Your task to perform on an android device: turn off airplane mode Image 0: 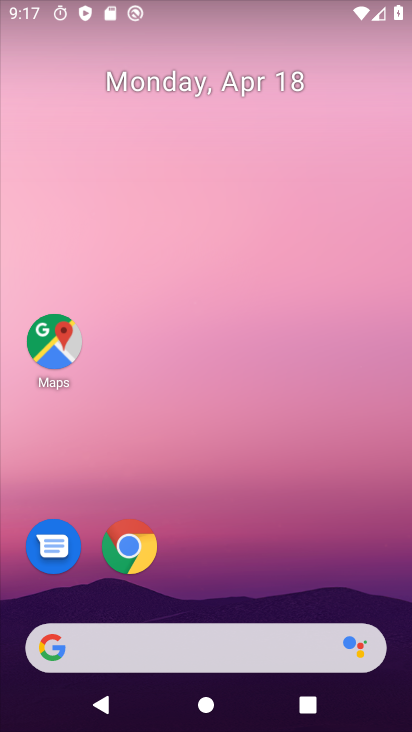
Step 0: drag from (223, 497) to (22, 11)
Your task to perform on an android device: turn off airplane mode Image 1: 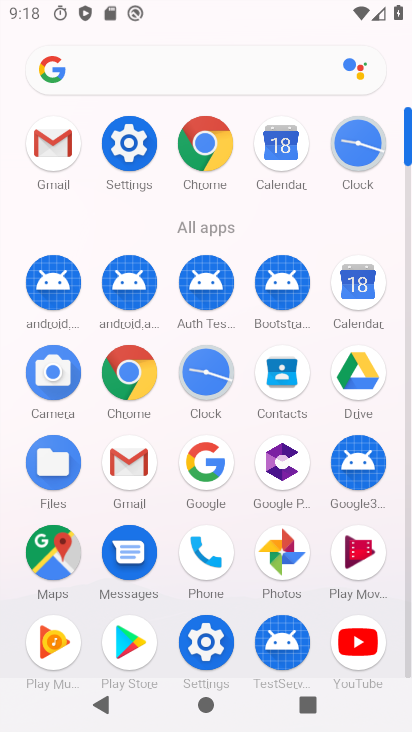
Step 1: click (121, 136)
Your task to perform on an android device: turn off airplane mode Image 2: 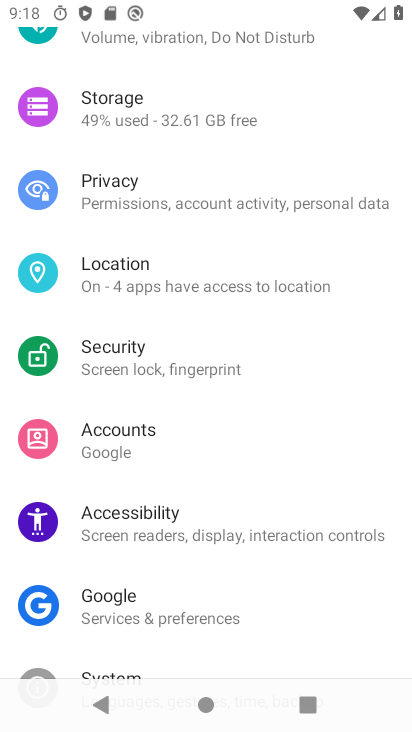
Step 2: drag from (187, 525) to (207, 228)
Your task to perform on an android device: turn off airplane mode Image 3: 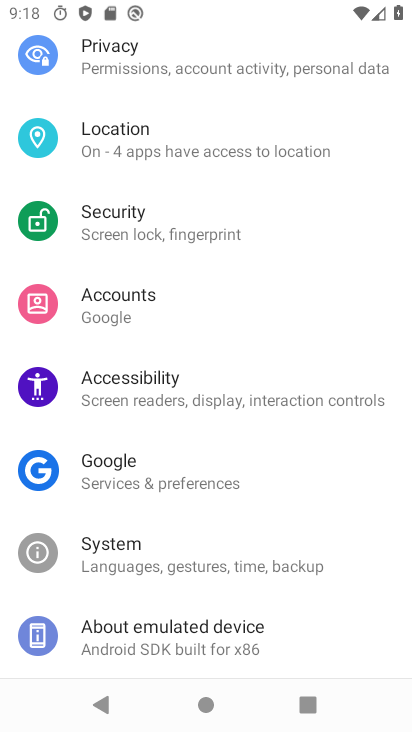
Step 3: drag from (204, 410) to (168, 110)
Your task to perform on an android device: turn off airplane mode Image 4: 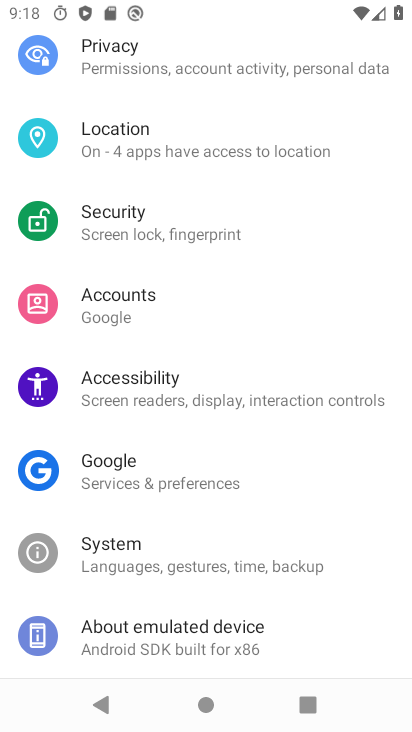
Step 4: drag from (257, 533) to (234, 206)
Your task to perform on an android device: turn off airplane mode Image 5: 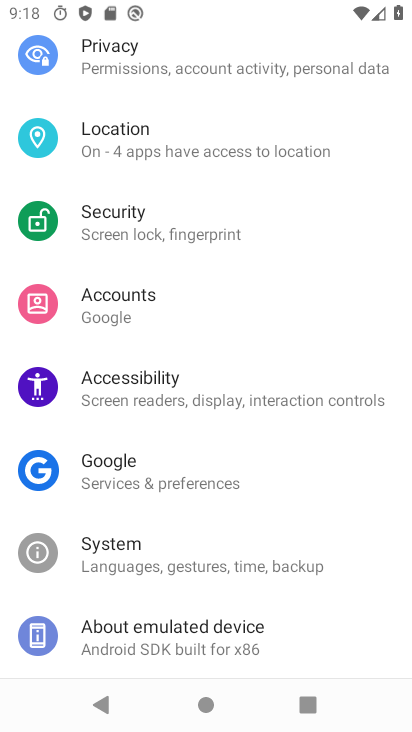
Step 5: drag from (251, 174) to (197, 509)
Your task to perform on an android device: turn off airplane mode Image 6: 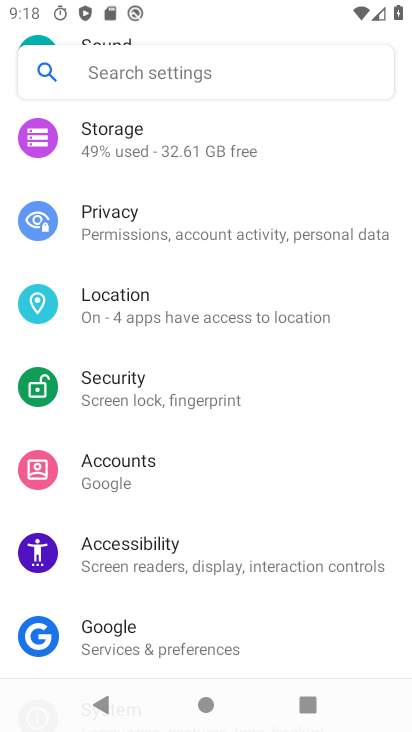
Step 6: drag from (190, 137) to (194, 464)
Your task to perform on an android device: turn off airplane mode Image 7: 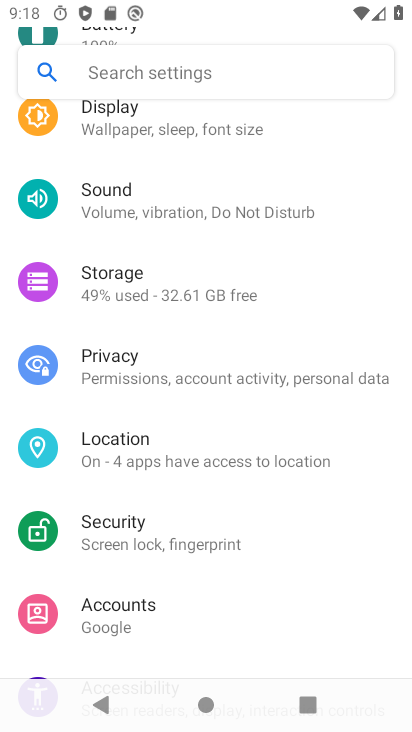
Step 7: drag from (242, 151) to (282, 471)
Your task to perform on an android device: turn off airplane mode Image 8: 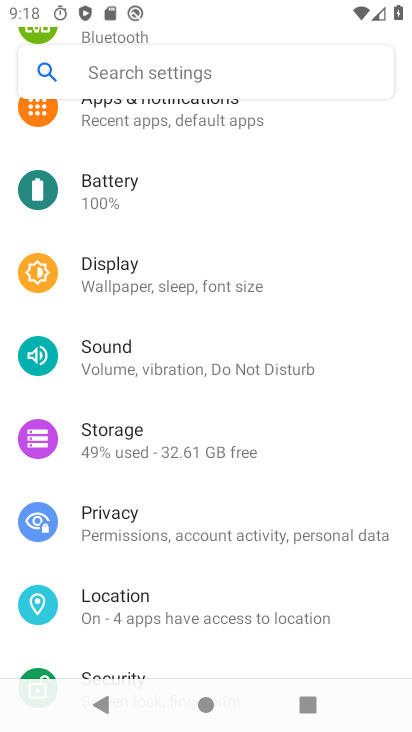
Step 8: drag from (267, 226) to (290, 547)
Your task to perform on an android device: turn off airplane mode Image 9: 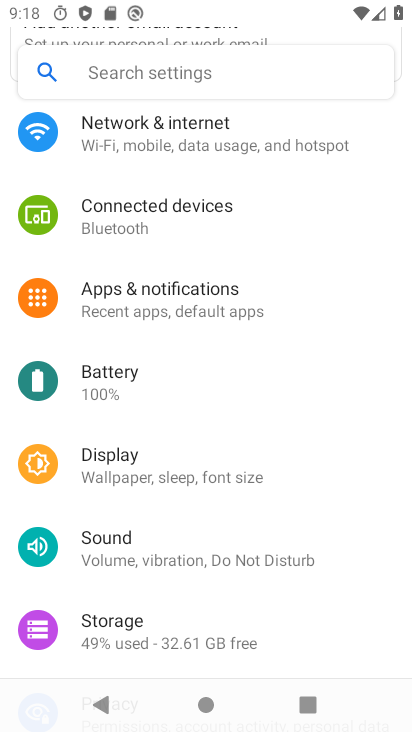
Step 9: drag from (208, 274) to (268, 593)
Your task to perform on an android device: turn off airplane mode Image 10: 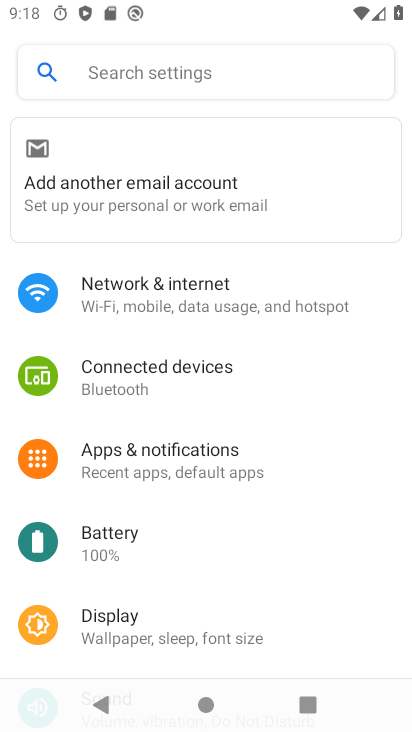
Step 10: drag from (195, 424) to (183, 546)
Your task to perform on an android device: turn off airplane mode Image 11: 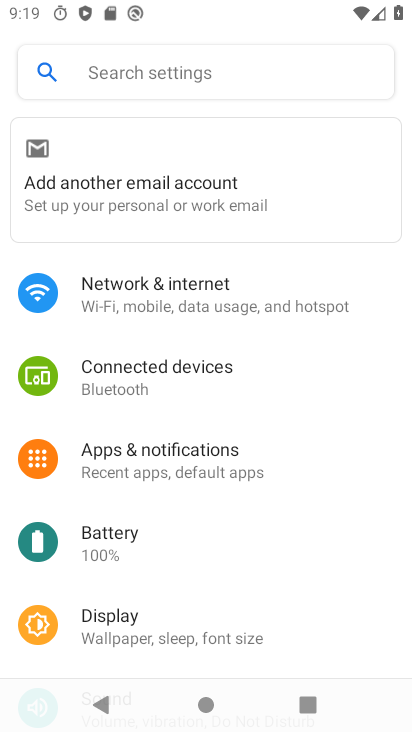
Step 11: drag from (160, 317) to (194, 516)
Your task to perform on an android device: turn off airplane mode Image 12: 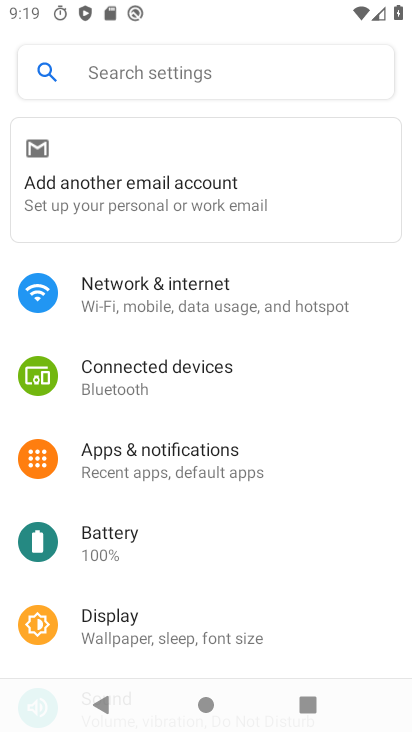
Step 12: click (151, 292)
Your task to perform on an android device: turn off airplane mode Image 13: 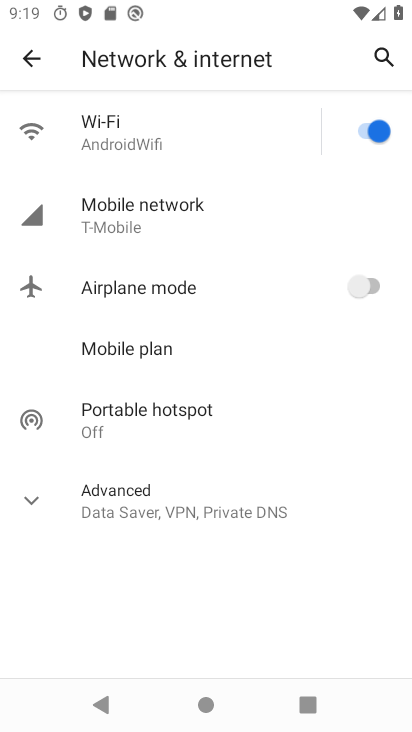
Step 13: task complete